Your task to perform on an android device: Open accessibility settings Image 0: 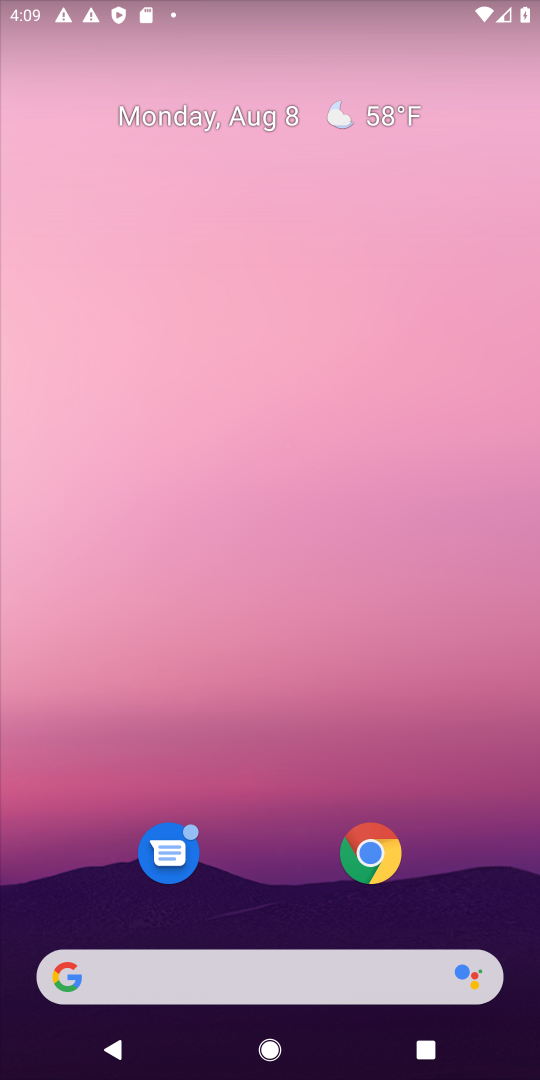
Step 0: drag from (314, 844) to (326, 43)
Your task to perform on an android device: Open accessibility settings Image 1: 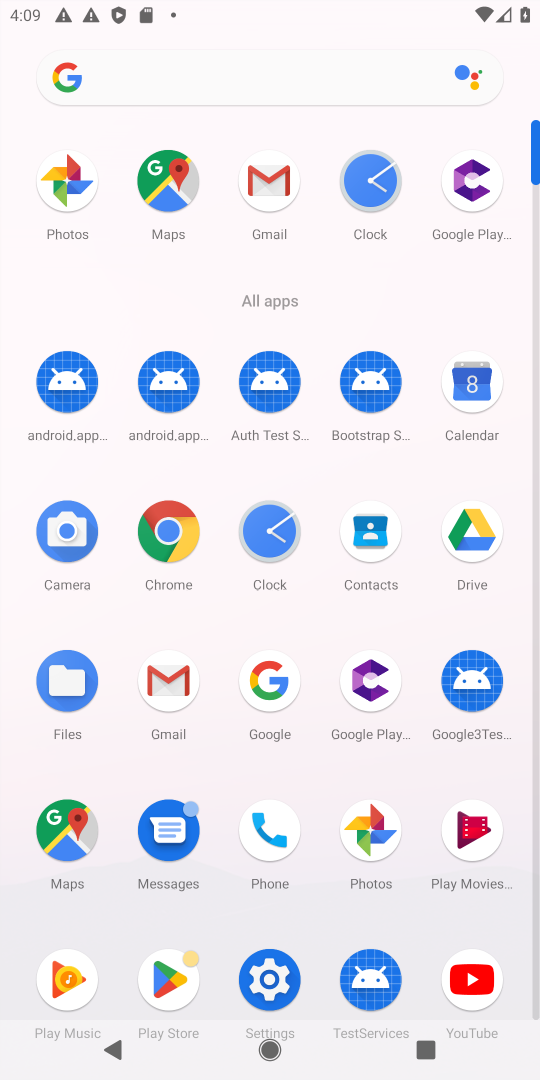
Step 1: click (248, 982)
Your task to perform on an android device: Open accessibility settings Image 2: 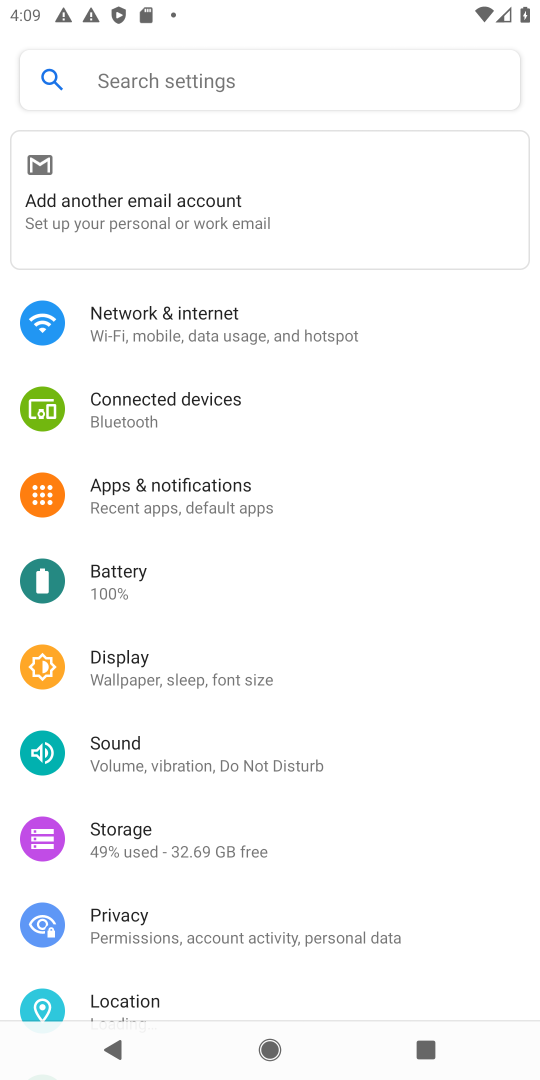
Step 2: drag from (246, 958) to (251, 411)
Your task to perform on an android device: Open accessibility settings Image 3: 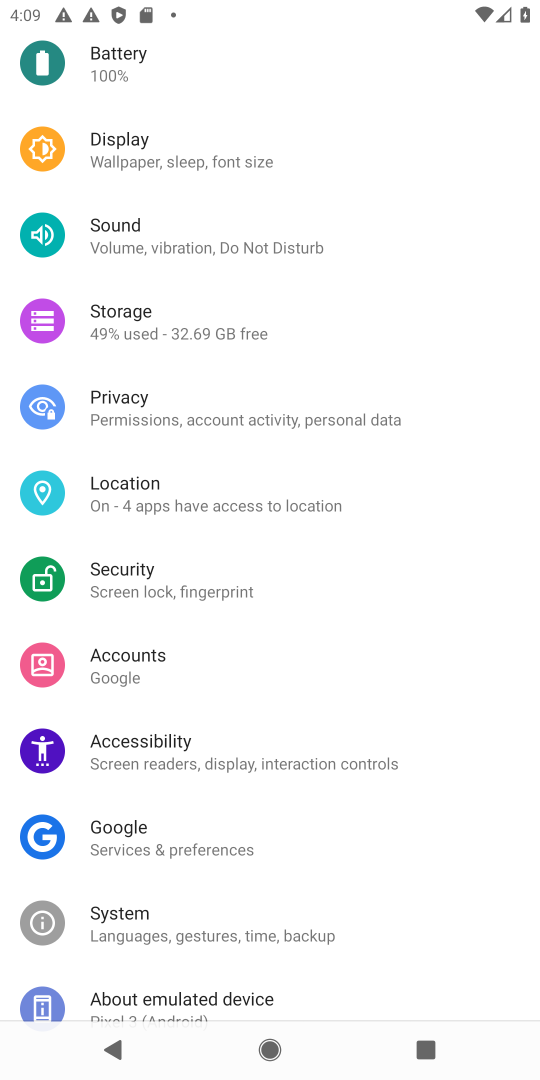
Step 3: click (199, 751)
Your task to perform on an android device: Open accessibility settings Image 4: 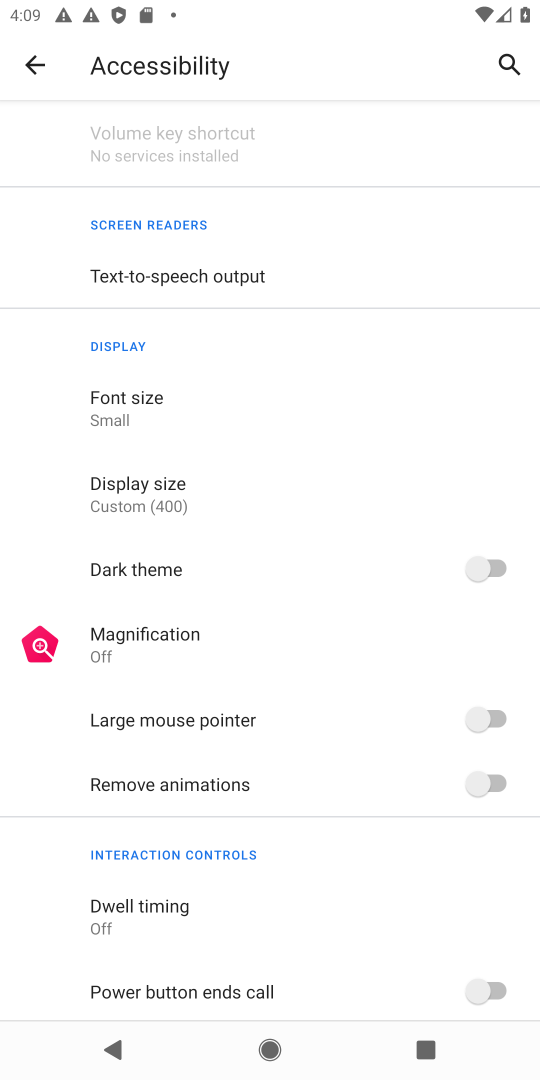
Step 4: task complete